Your task to perform on an android device: Show me popular games on the Play Store Image 0: 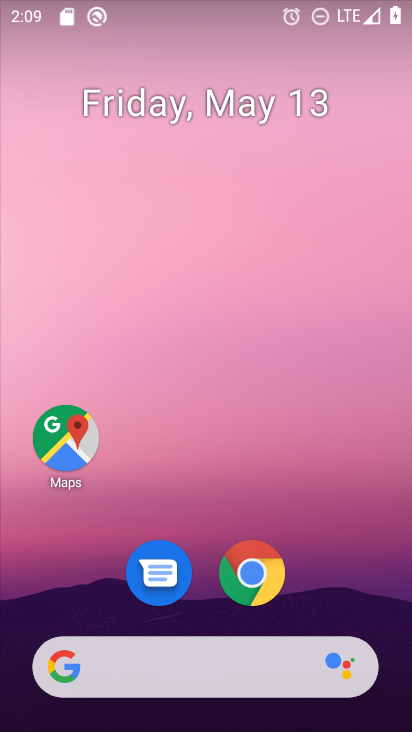
Step 0: drag from (248, 716) to (271, 99)
Your task to perform on an android device: Show me popular games on the Play Store Image 1: 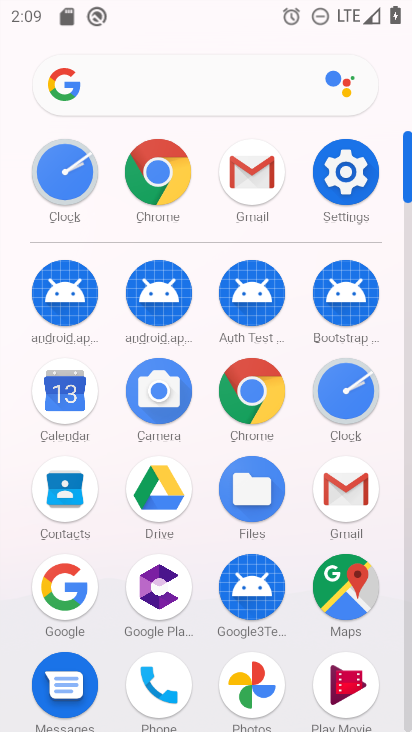
Step 1: drag from (198, 602) to (246, 169)
Your task to perform on an android device: Show me popular games on the Play Store Image 2: 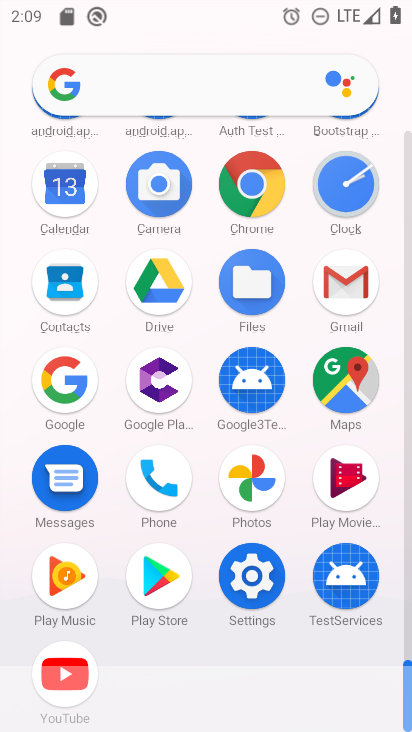
Step 2: click (159, 576)
Your task to perform on an android device: Show me popular games on the Play Store Image 3: 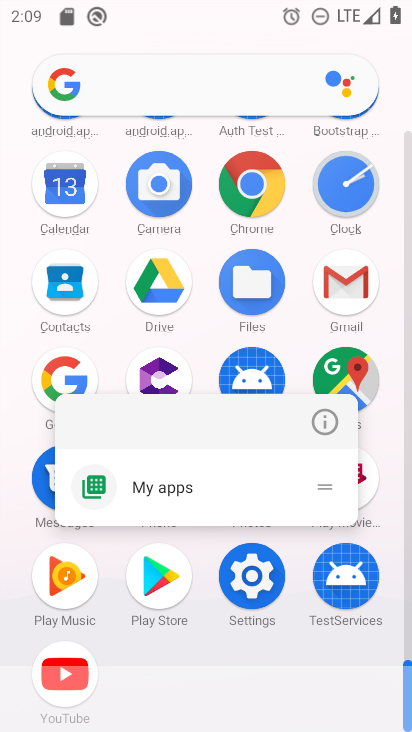
Step 3: click (158, 577)
Your task to perform on an android device: Show me popular games on the Play Store Image 4: 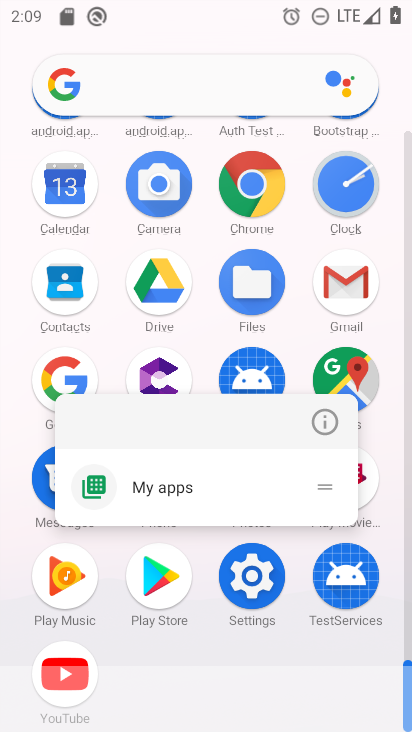
Step 4: click (158, 577)
Your task to perform on an android device: Show me popular games on the Play Store Image 5: 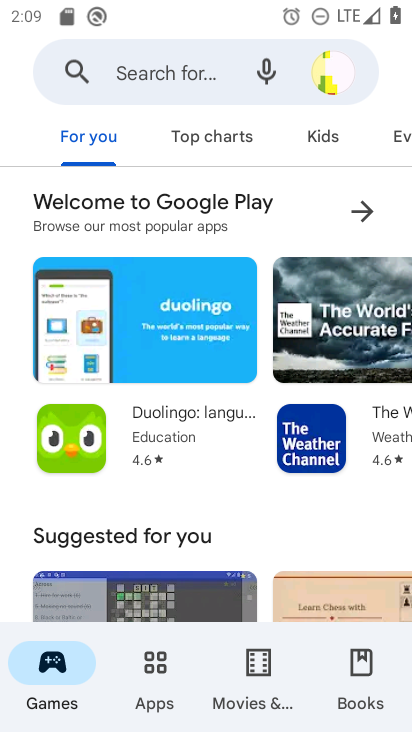
Step 5: click (245, 72)
Your task to perform on an android device: Show me popular games on the Play Store Image 6: 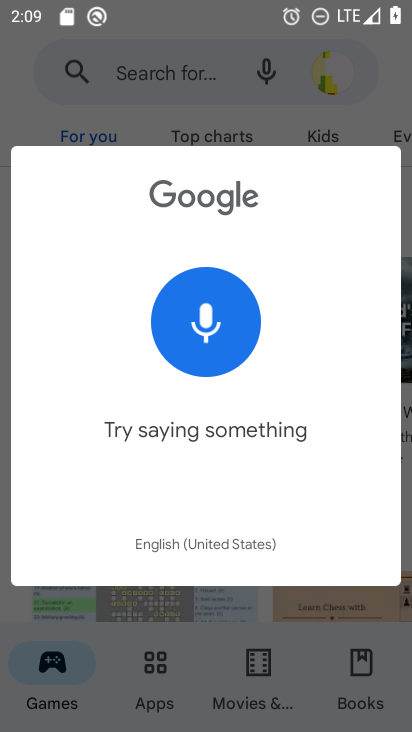
Step 6: click (245, 121)
Your task to perform on an android device: Show me popular games on the Play Store Image 7: 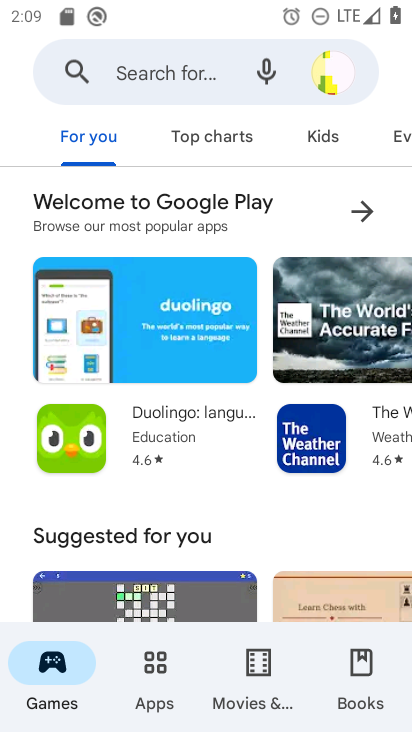
Step 7: task complete